Your task to perform on an android device: turn off javascript in the chrome app Image 0: 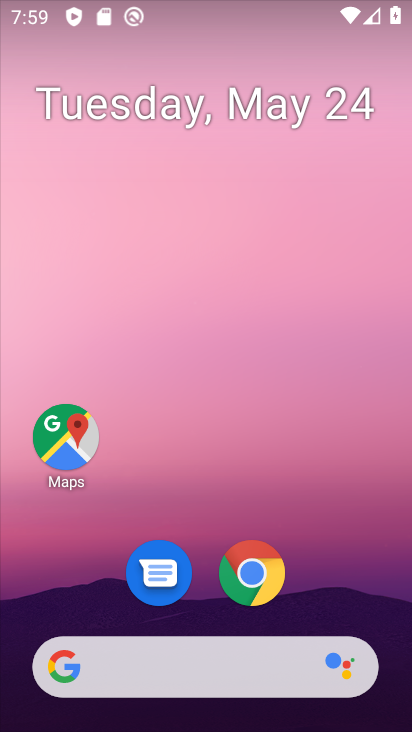
Step 0: click (255, 574)
Your task to perform on an android device: turn off javascript in the chrome app Image 1: 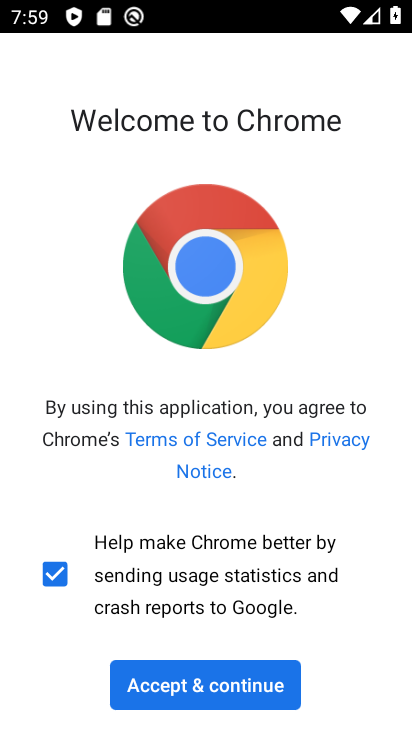
Step 1: click (189, 682)
Your task to perform on an android device: turn off javascript in the chrome app Image 2: 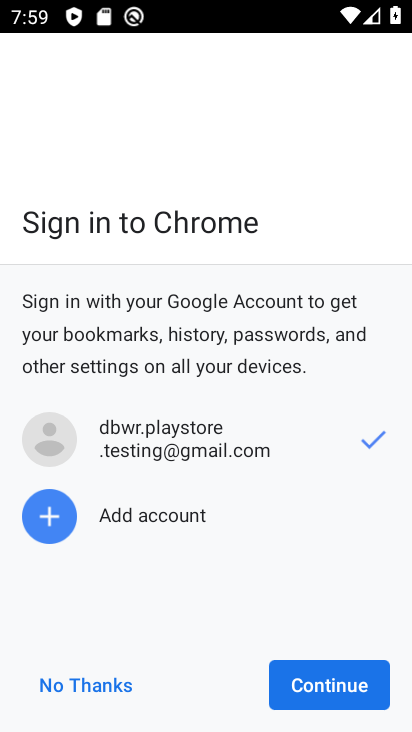
Step 2: click (327, 692)
Your task to perform on an android device: turn off javascript in the chrome app Image 3: 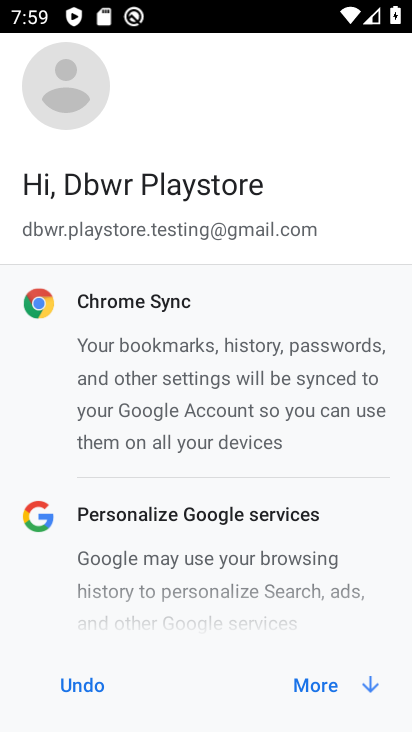
Step 3: click (327, 692)
Your task to perform on an android device: turn off javascript in the chrome app Image 4: 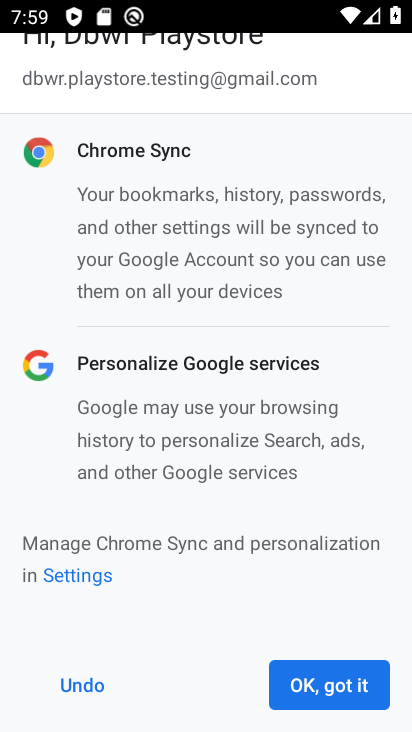
Step 4: click (318, 684)
Your task to perform on an android device: turn off javascript in the chrome app Image 5: 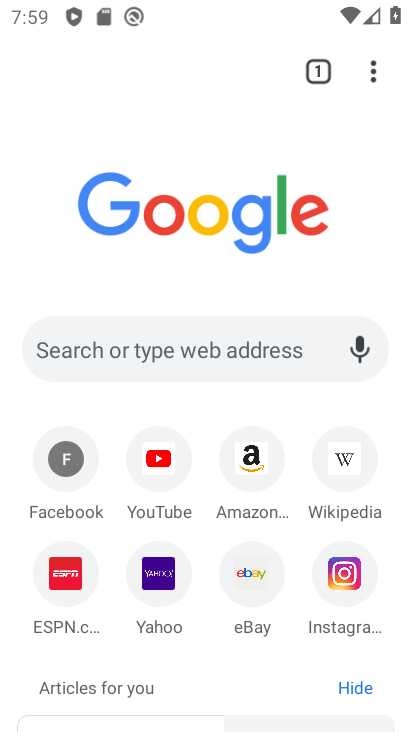
Step 5: click (366, 62)
Your task to perform on an android device: turn off javascript in the chrome app Image 6: 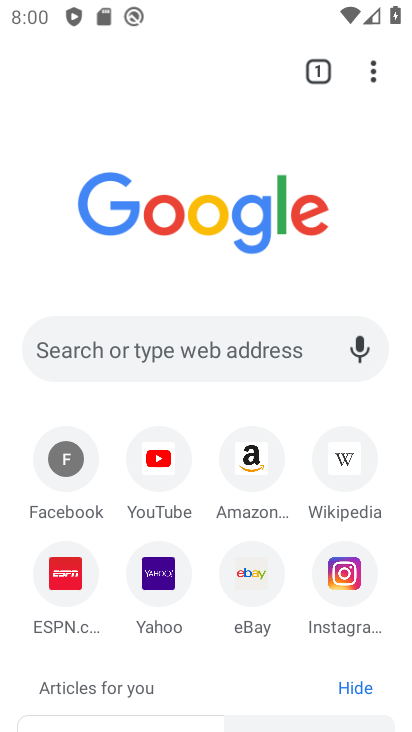
Step 6: click (369, 58)
Your task to perform on an android device: turn off javascript in the chrome app Image 7: 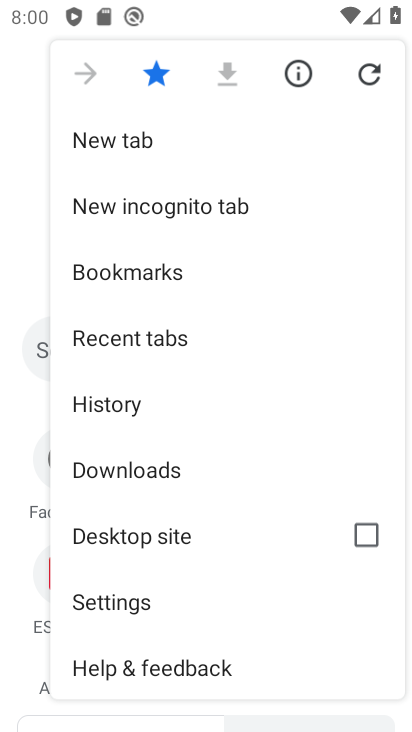
Step 7: click (158, 614)
Your task to perform on an android device: turn off javascript in the chrome app Image 8: 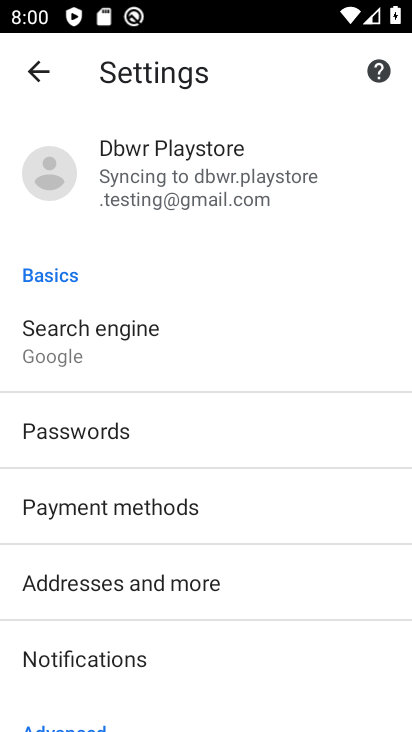
Step 8: drag from (134, 680) to (196, 145)
Your task to perform on an android device: turn off javascript in the chrome app Image 9: 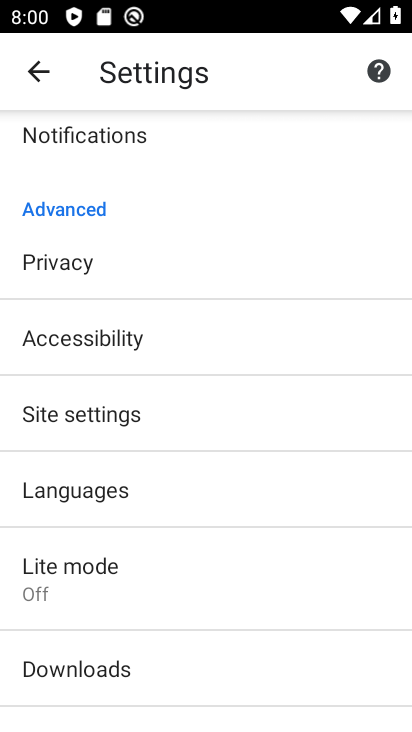
Step 9: click (91, 435)
Your task to perform on an android device: turn off javascript in the chrome app Image 10: 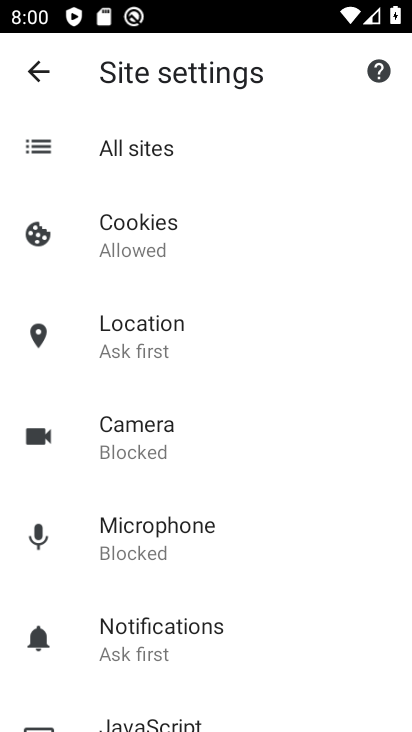
Step 10: drag from (219, 644) to (234, 363)
Your task to perform on an android device: turn off javascript in the chrome app Image 11: 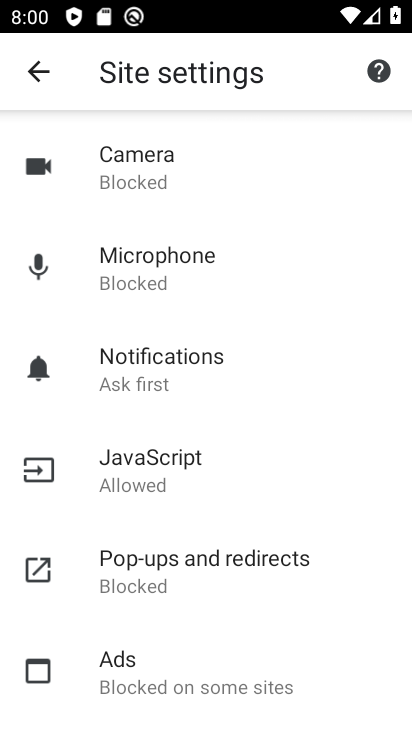
Step 11: click (184, 467)
Your task to perform on an android device: turn off javascript in the chrome app Image 12: 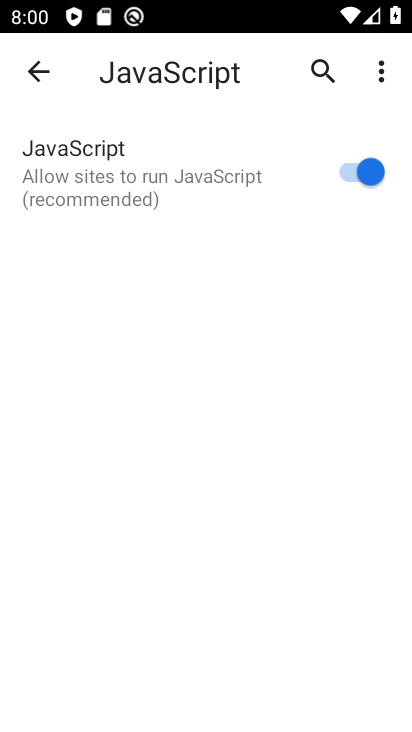
Step 12: click (354, 179)
Your task to perform on an android device: turn off javascript in the chrome app Image 13: 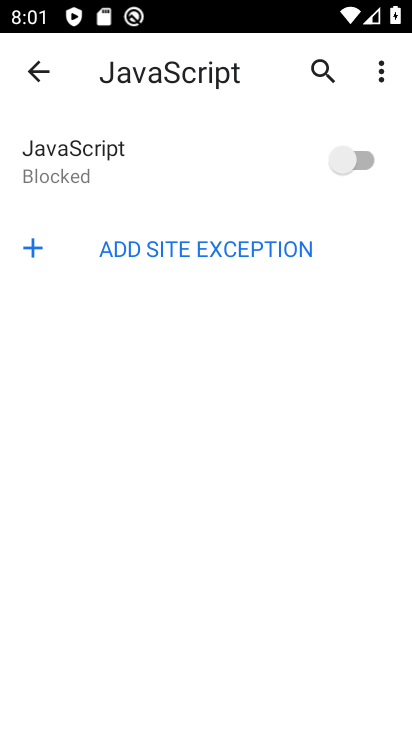
Step 13: task complete